Your task to perform on an android device: Go to calendar. Show me events next week Image 0: 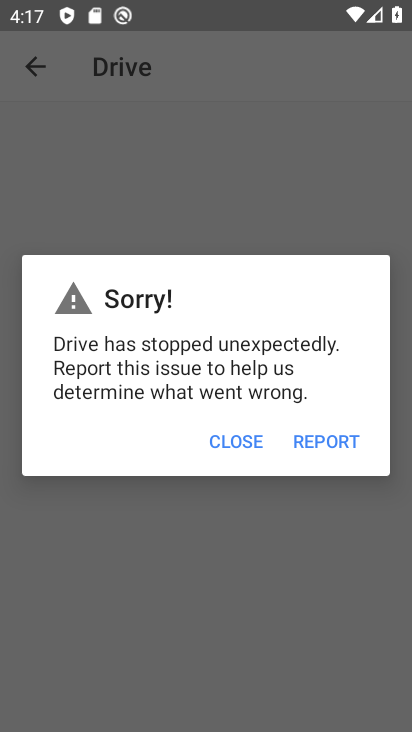
Step 0: press home button
Your task to perform on an android device: Go to calendar. Show me events next week Image 1: 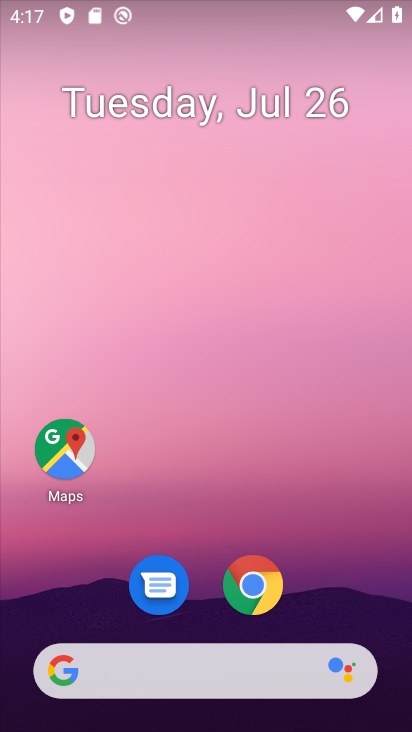
Step 1: drag from (337, 606) to (323, 52)
Your task to perform on an android device: Go to calendar. Show me events next week Image 2: 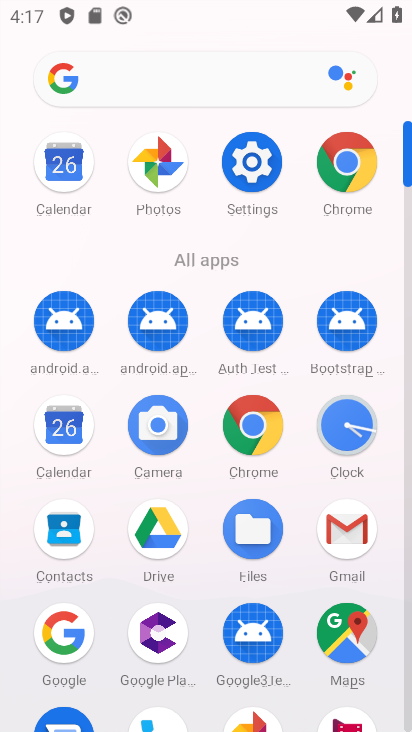
Step 2: click (61, 160)
Your task to perform on an android device: Go to calendar. Show me events next week Image 3: 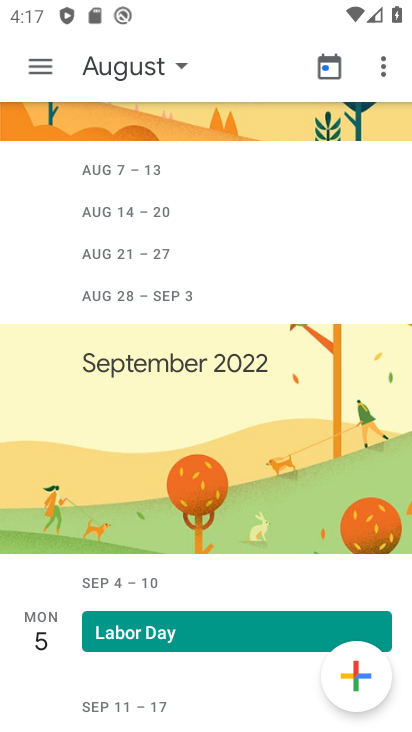
Step 3: click (30, 52)
Your task to perform on an android device: Go to calendar. Show me events next week Image 4: 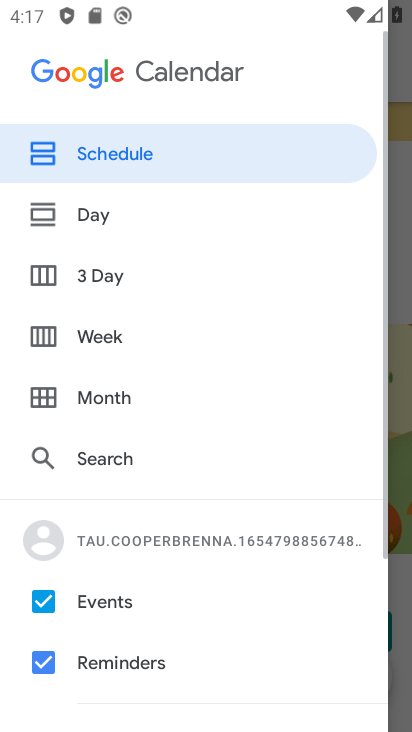
Step 4: click (43, 322)
Your task to perform on an android device: Go to calendar. Show me events next week Image 5: 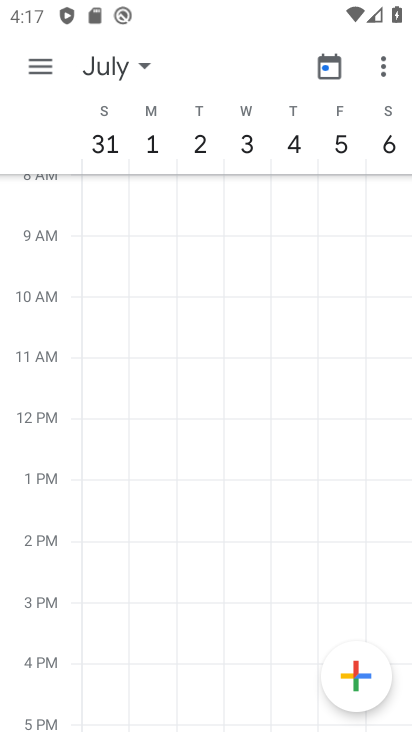
Step 5: task complete